Your task to perform on an android device: Show me recent news Image 0: 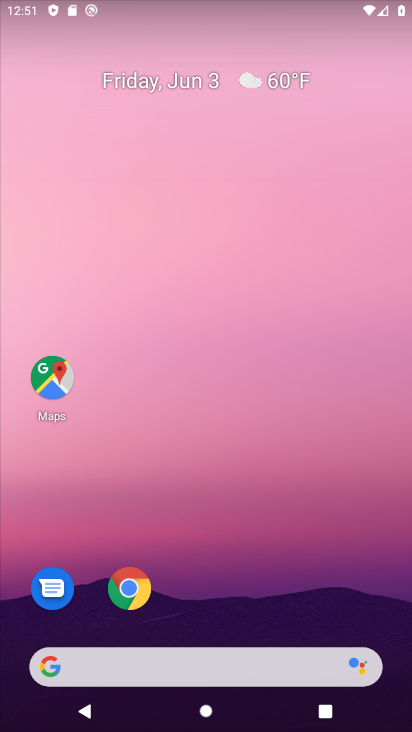
Step 0: drag from (292, 579) to (193, 178)
Your task to perform on an android device: Show me recent news Image 1: 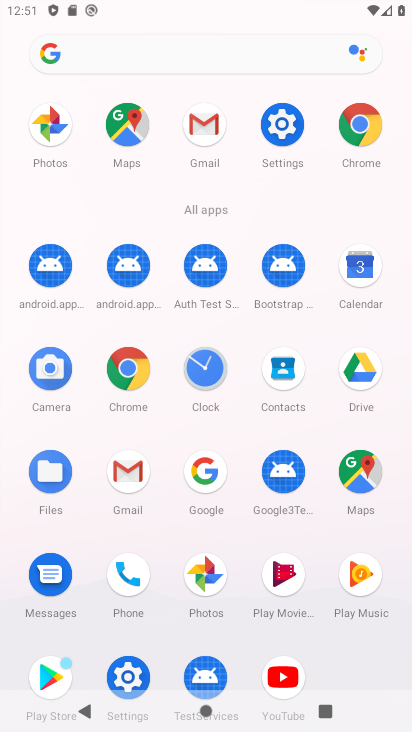
Step 1: click (357, 130)
Your task to perform on an android device: Show me recent news Image 2: 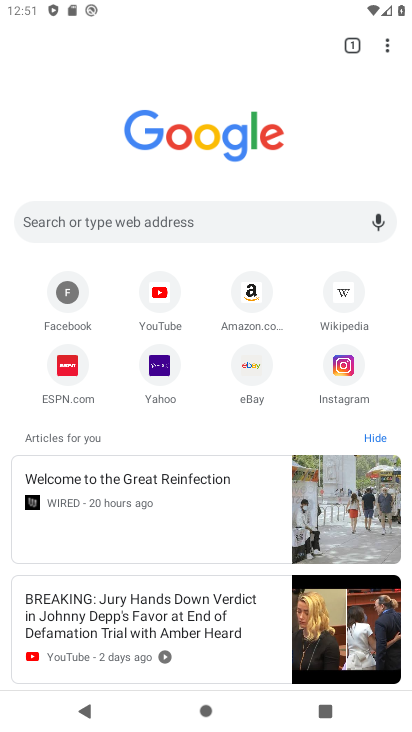
Step 2: click (294, 231)
Your task to perform on an android device: Show me recent news Image 3: 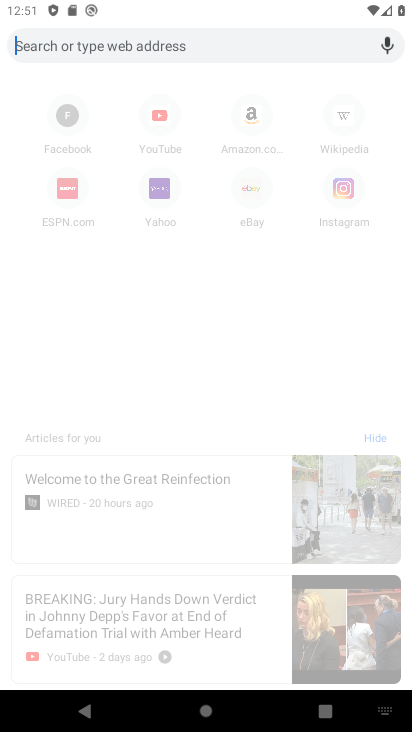
Step 3: type "news"
Your task to perform on an android device: Show me recent news Image 4: 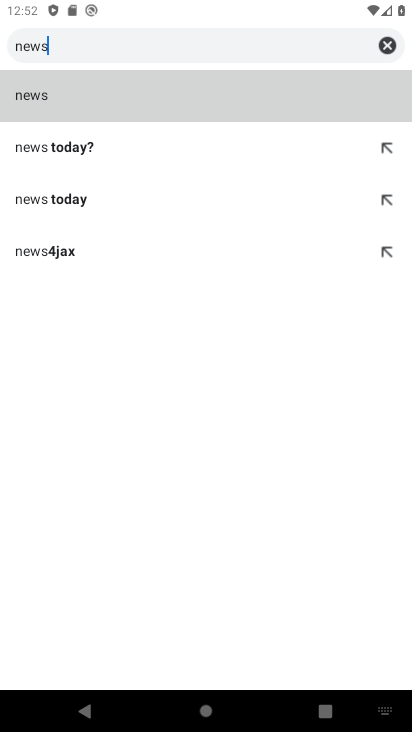
Step 4: click (38, 107)
Your task to perform on an android device: Show me recent news Image 5: 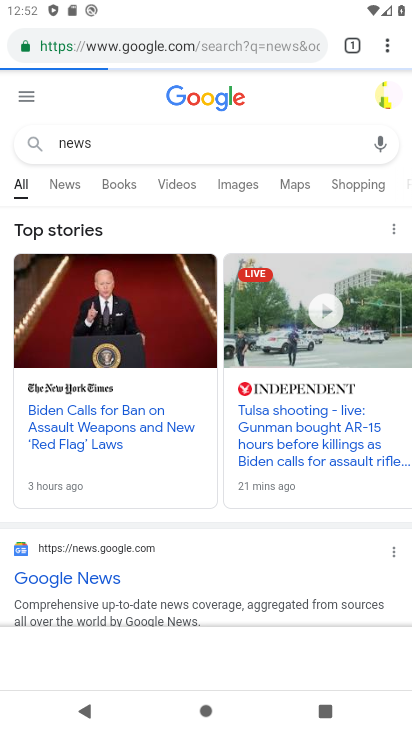
Step 5: click (61, 183)
Your task to perform on an android device: Show me recent news Image 6: 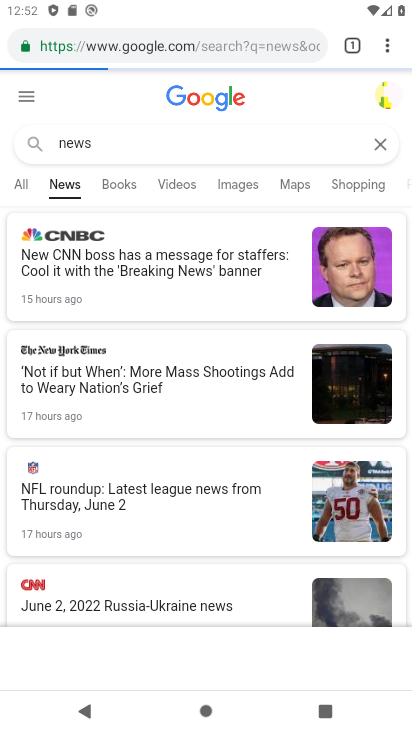
Step 6: task complete